Your task to perform on an android device: open chrome privacy settings Image 0: 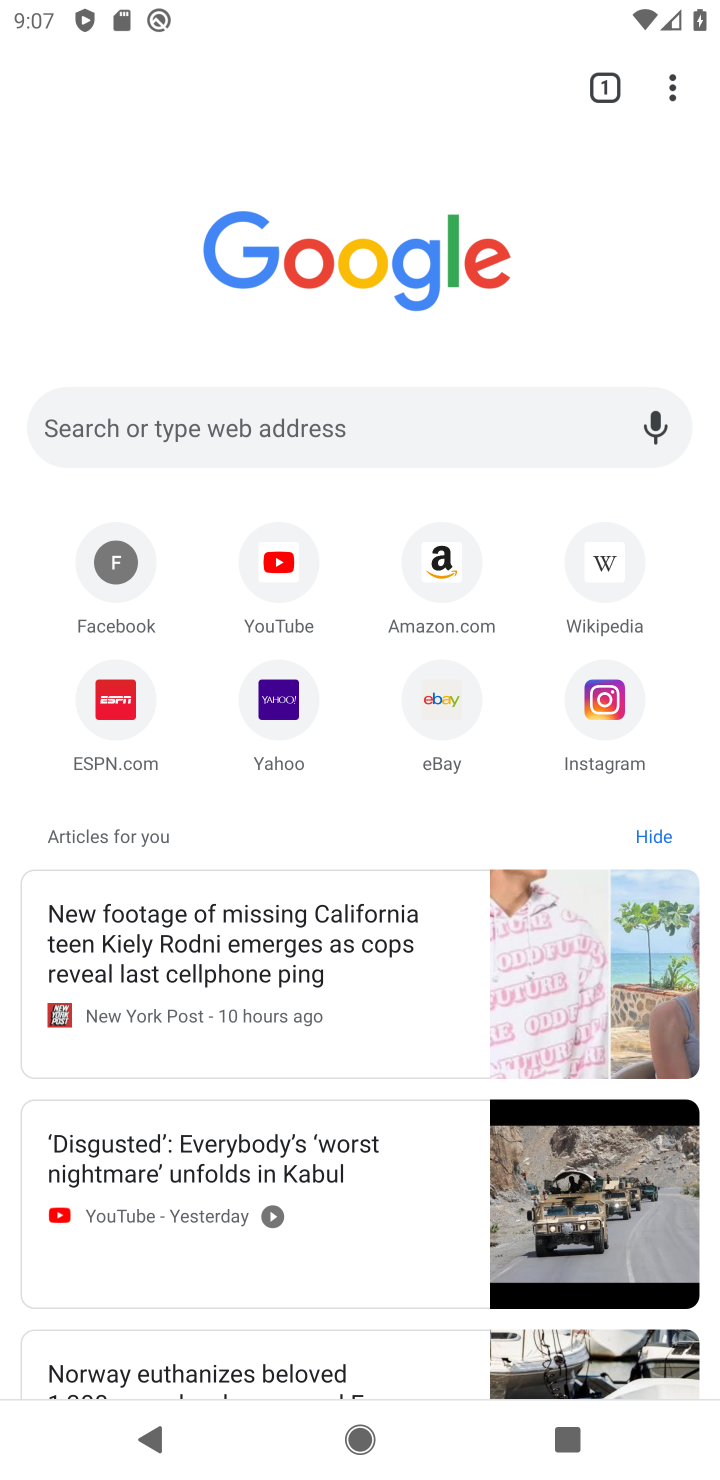
Step 0: press home button
Your task to perform on an android device: open chrome privacy settings Image 1: 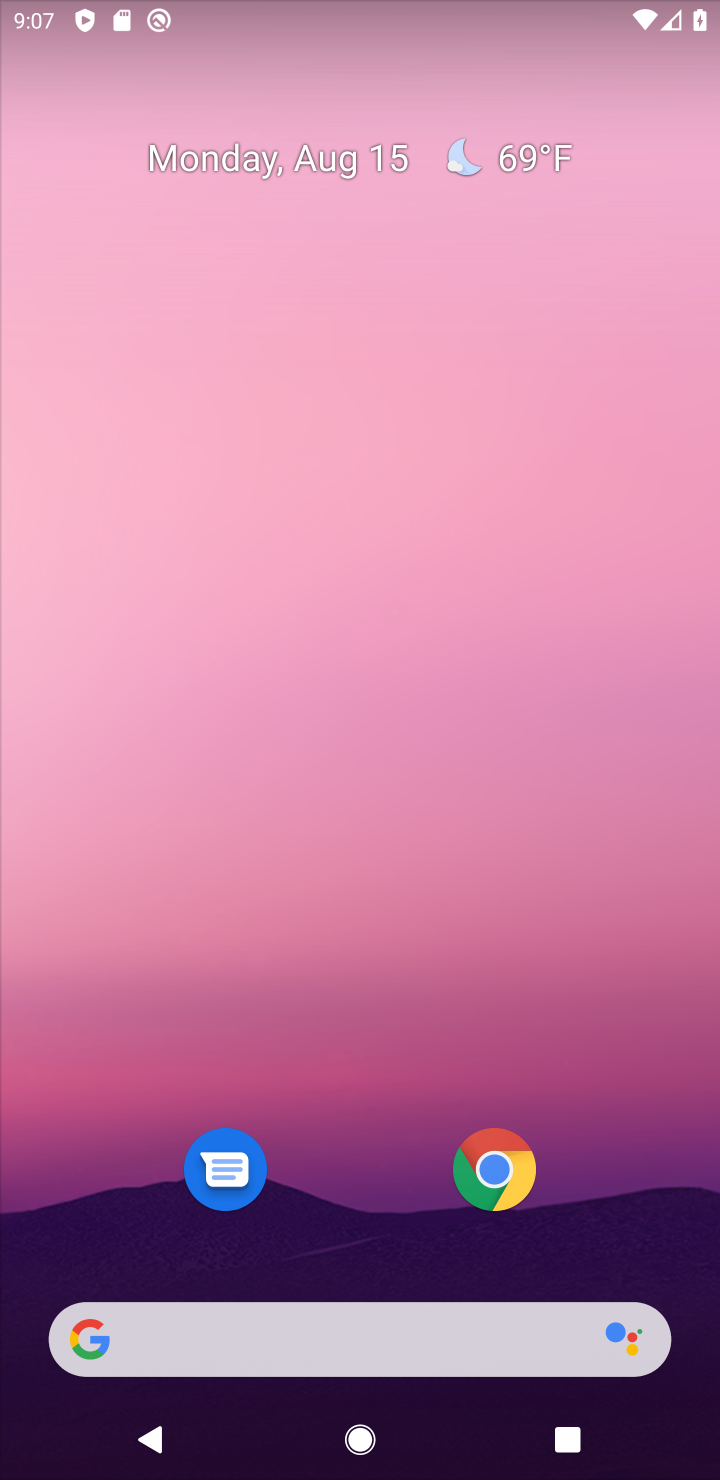
Step 1: click (611, 395)
Your task to perform on an android device: open chrome privacy settings Image 2: 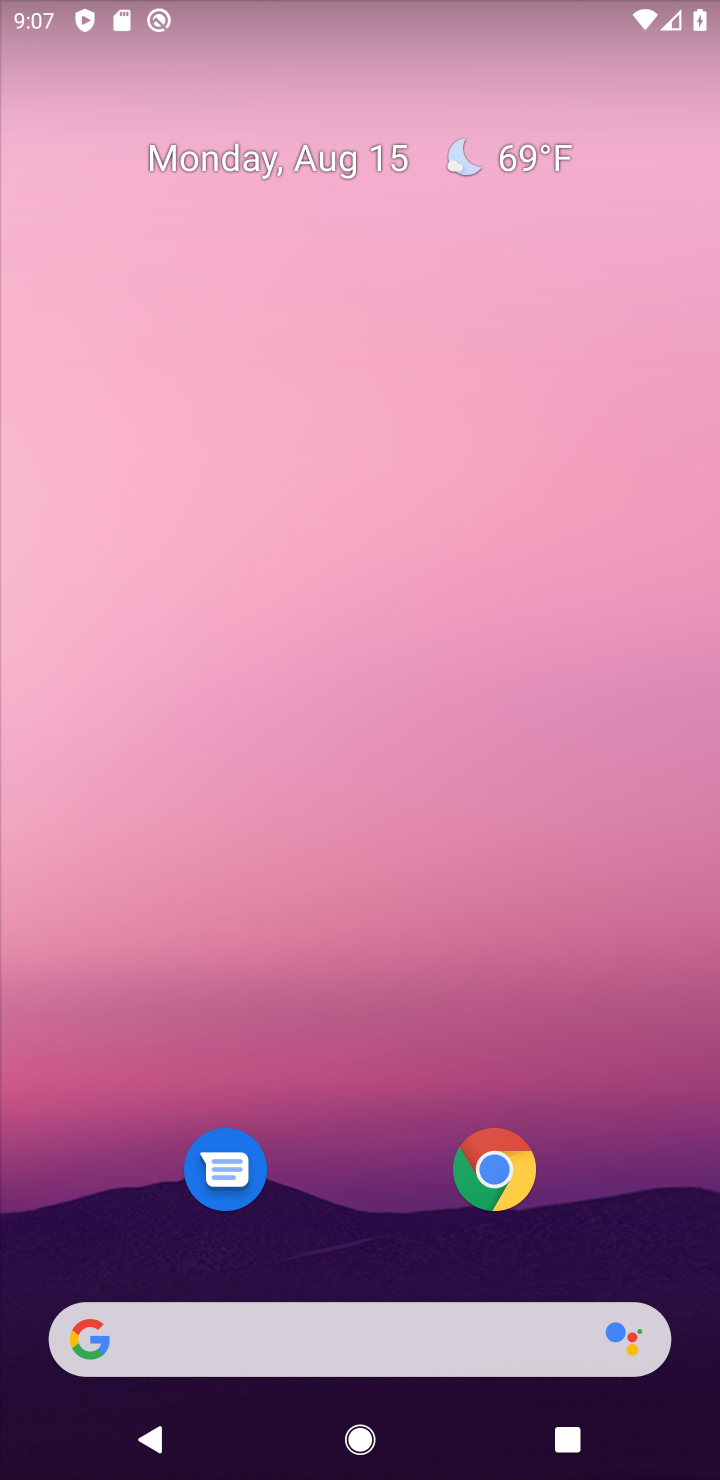
Step 2: drag from (388, 1274) to (670, 188)
Your task to perform on an android device: open chrome privacy settings Image 3: 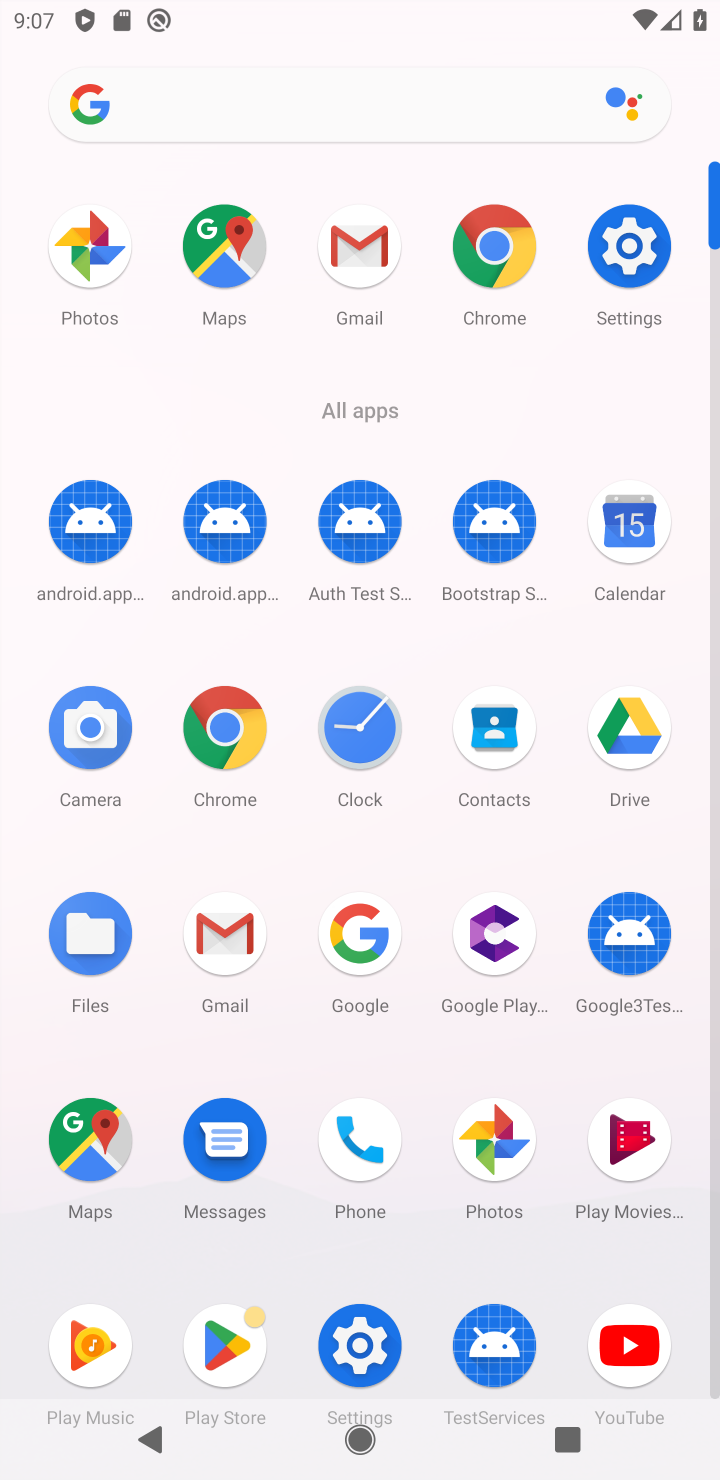
Step 3: click (624, 262)
Your task to perform on an android device: open chrome privacy settings Image 4: 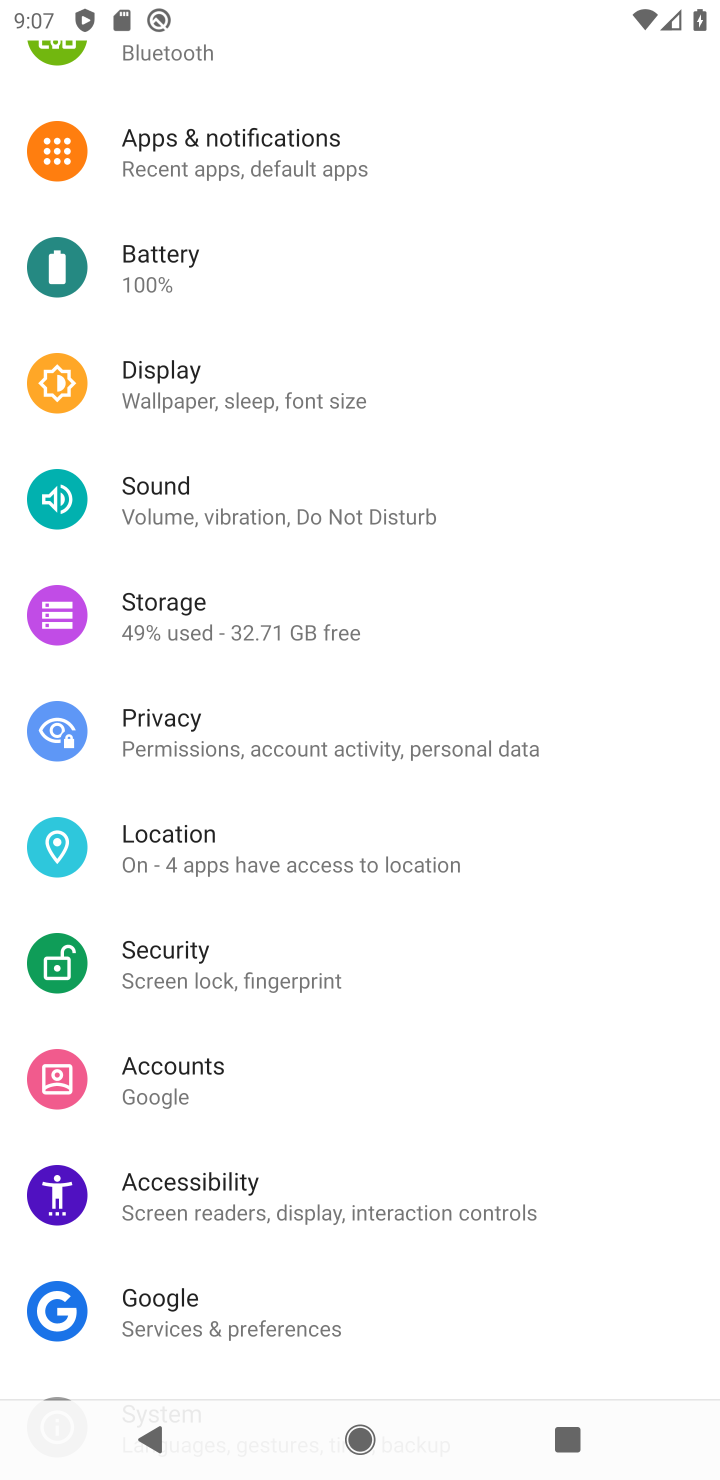
Step 4: click (220, 540)
Your task to perform on an android device: open chrome privacy settings Image 5: 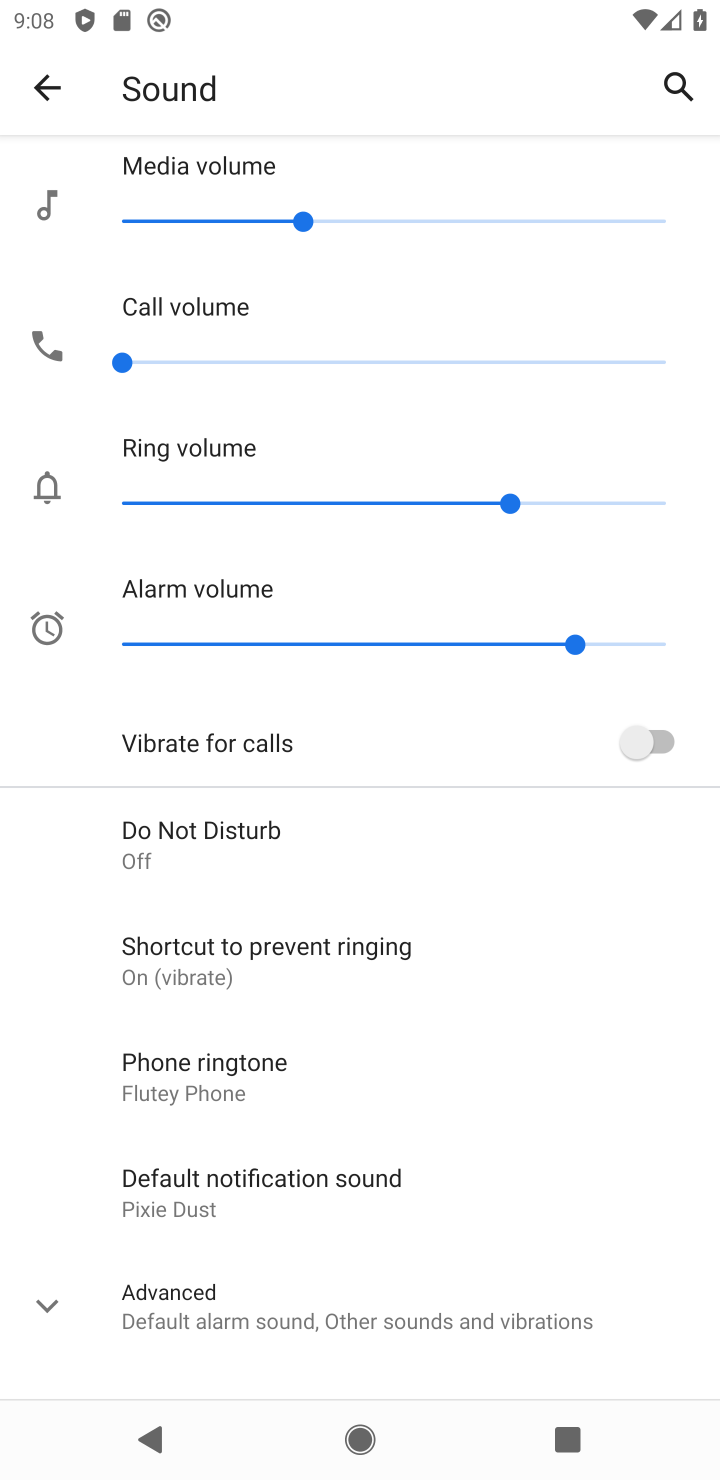
Step 5: task complete